Your task to perform on an android device: What is the news today? Image 0: 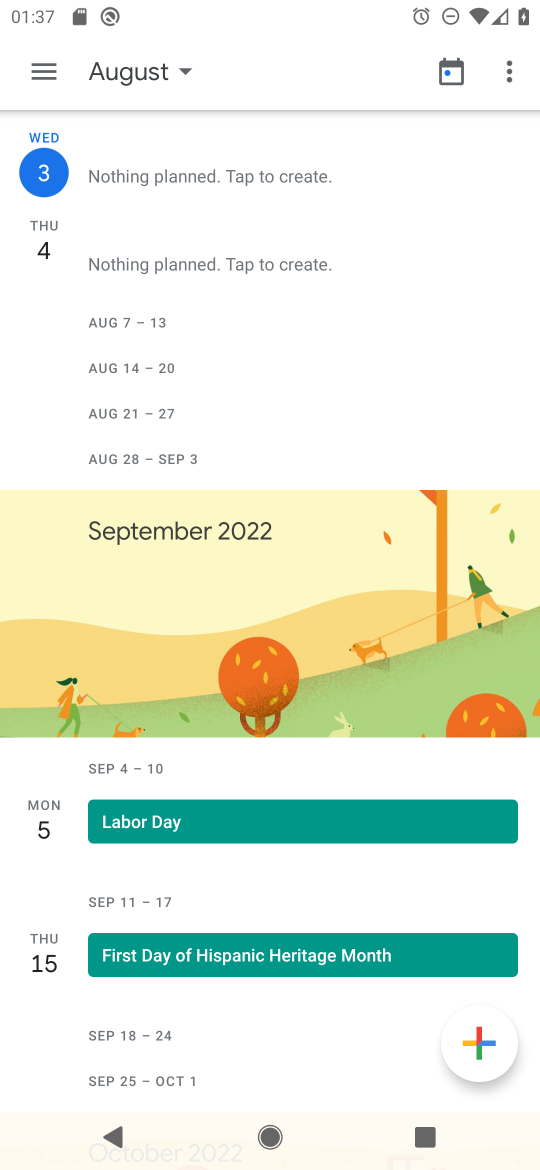
Step 0: press back button
Your task to perform on an android device: What is the news today? Image 1: 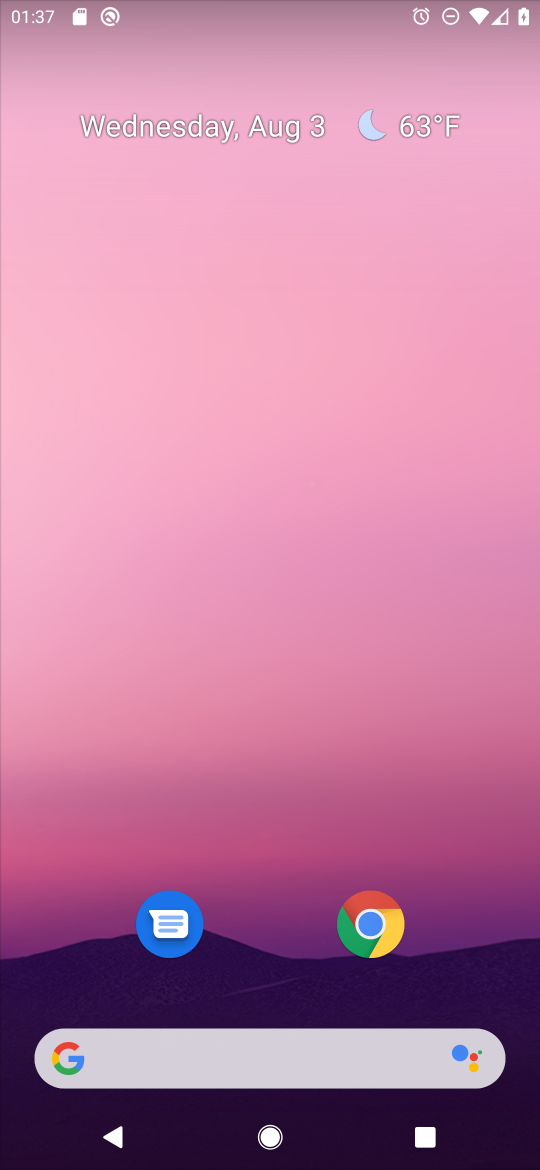
Step 1: drag from (270, 877) to (369, 67)
Your task to perform on an android device: What is the news today? Image 2: 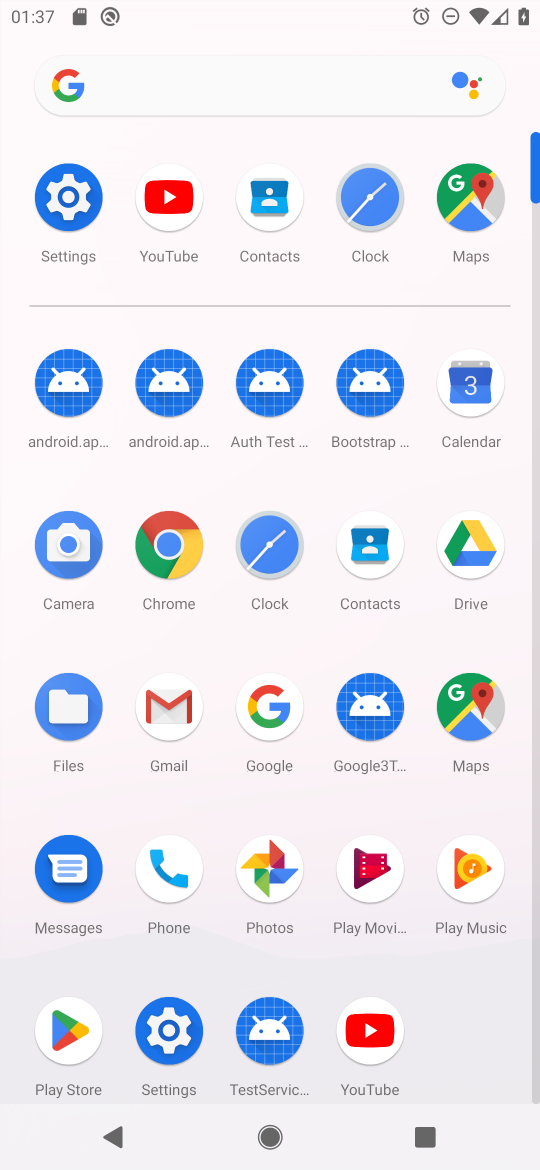
Step 2: click (175, 88)
Your task to perform on an android device: What is the news today? Image 3: 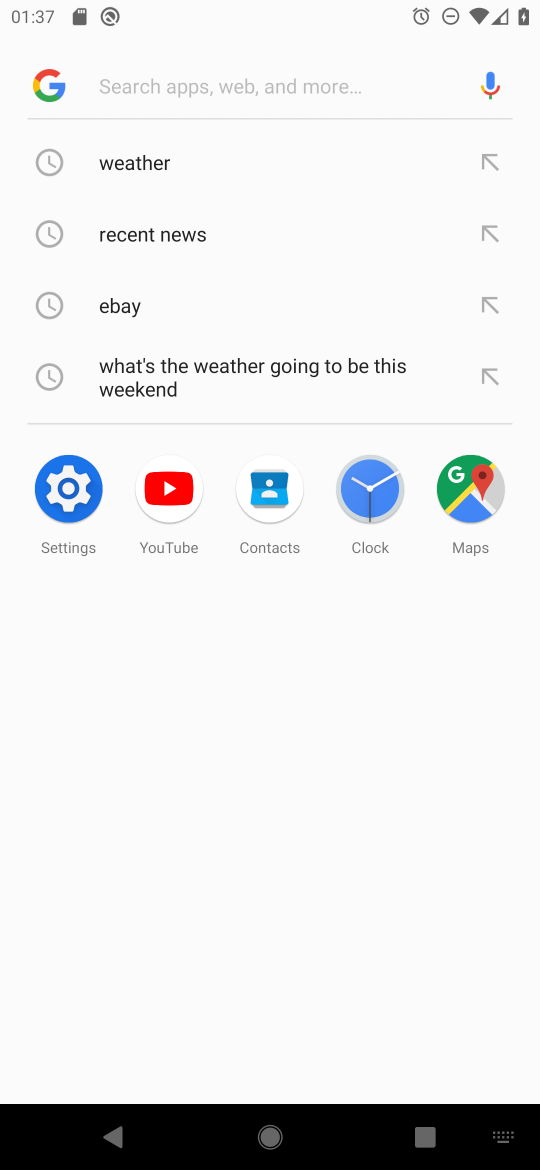
Step 3: click (162, 233)
Your task to perform on an android device: What is the news today? Image 4: 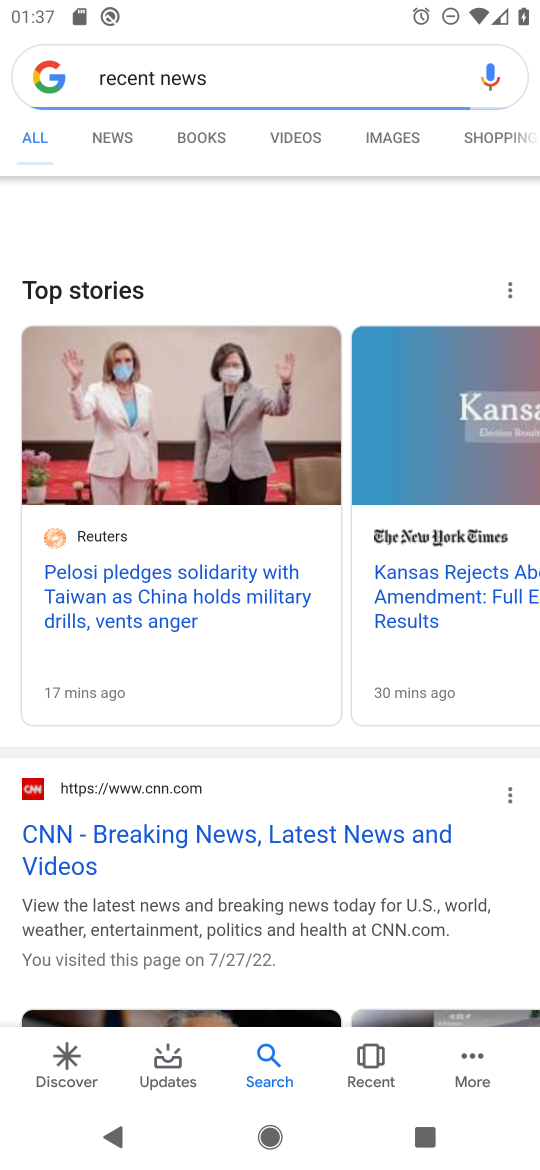
Step 4: task complete